Your task to perform on an android device: move a message to another label in the gmail app Image 0: 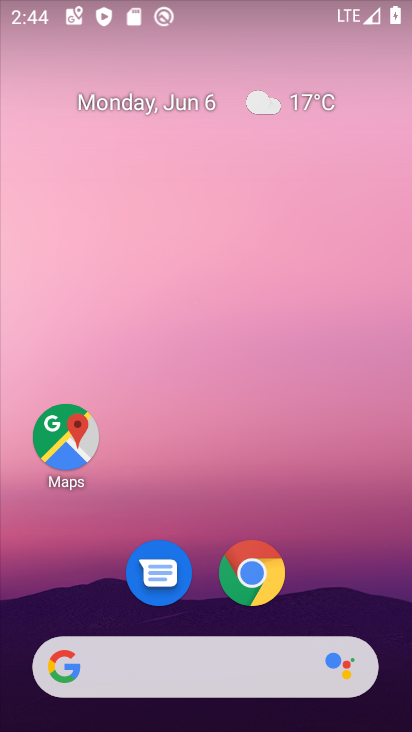
Step 0: drag from (368, 582) to (381, 111)
Your task to perform on an android device: move a message to another label in the gmail app Image 1: 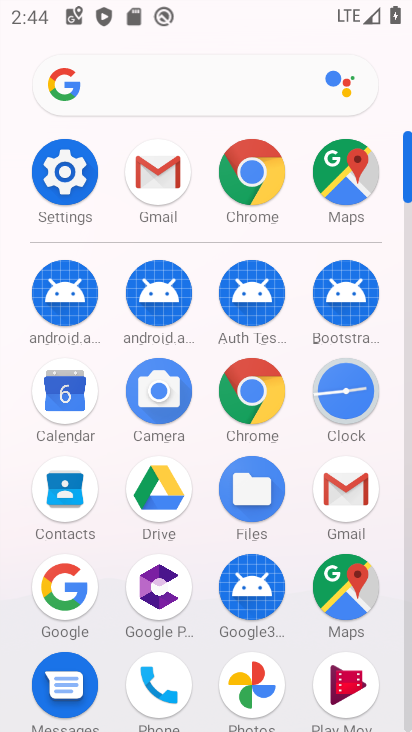
Step 1: click (349, 479)
Your task to perform on an android device: move a message to another label in the gmail app Image 2: 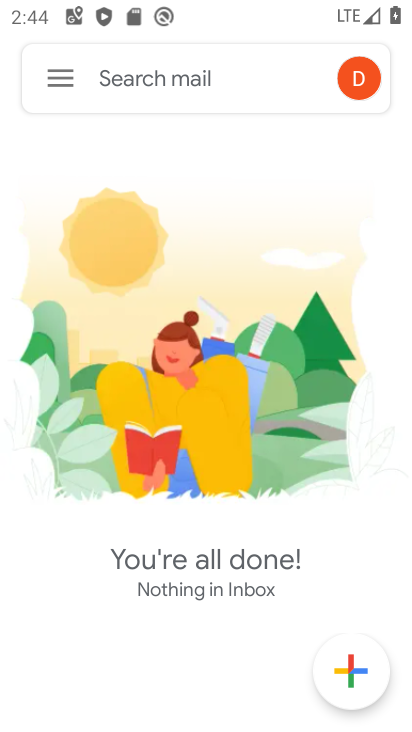
Step 2: task complete